Your task to perform on an android device: find photos in the google photos app Image 0: 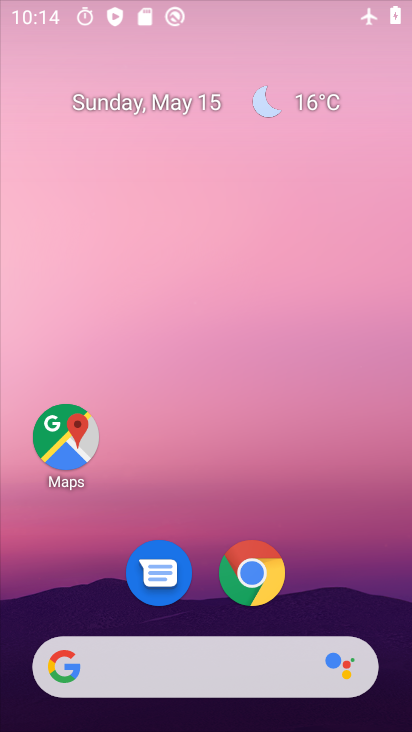
Step 0: drag from (326, 626) to (228, 219)
Your task to perform on an android device: find photos in the google photos app Image 1: 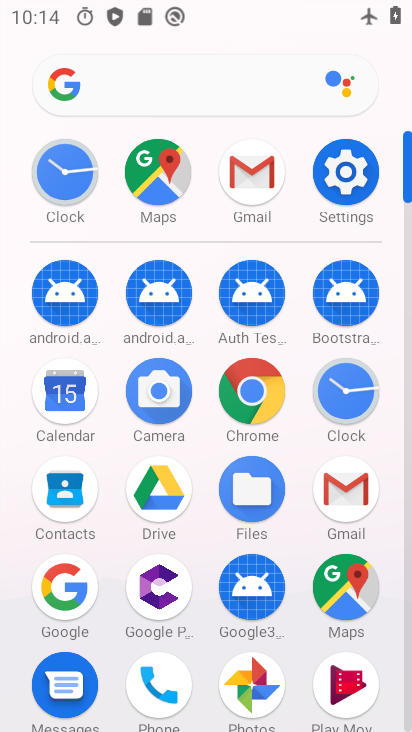
Step 1: click (251, 684)
Your task to perform on an android device: find photos in the google photos app Image 2: 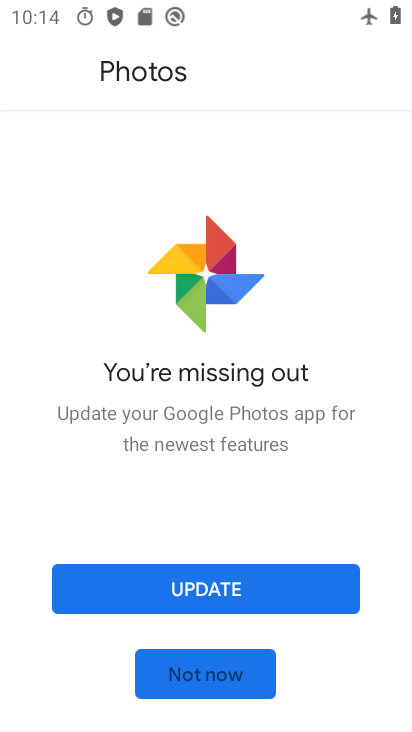
Step 2: click (207, 670)
Your task to perform on an android device: find photos in the google photos app Image 3: 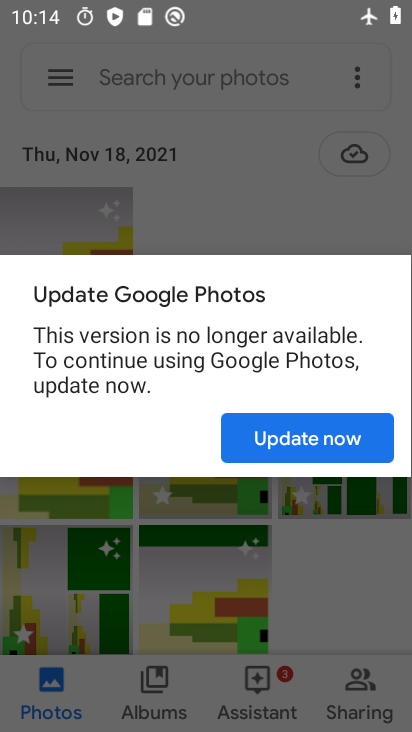
Step 3: task complete